Your task to perform on an android device: open app "Google Sheets" (install if not already installed) Image 0: 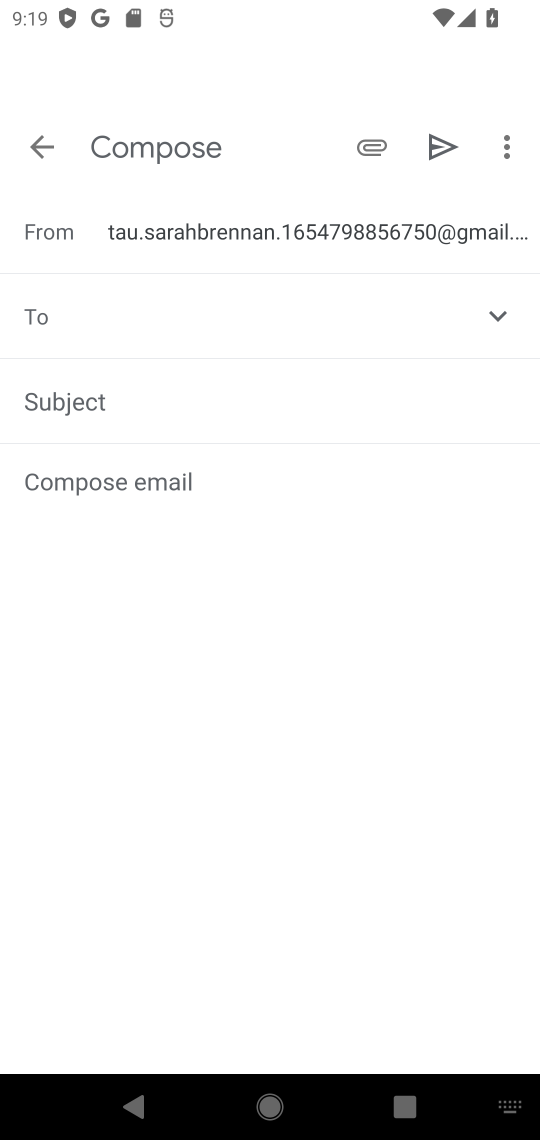
Step 0: press back button
Your task to perform on an android device: open app "Google Sheets" (install if not already installed) Image 1: 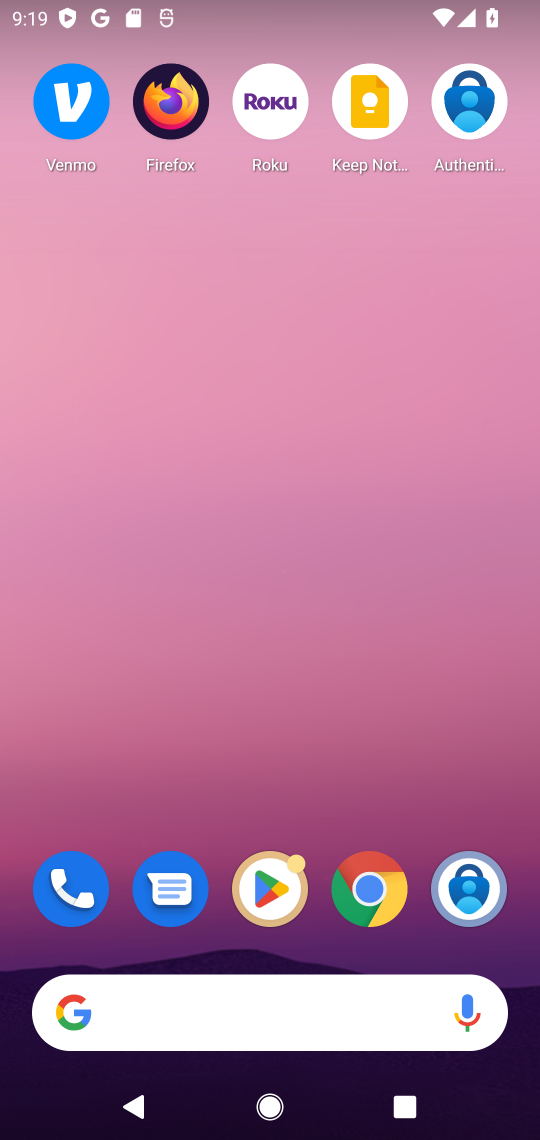
Step 1: click (246, 884)
Your task to perform on an android device: open app "Google Sheets" (install if not already installed) Image 2: 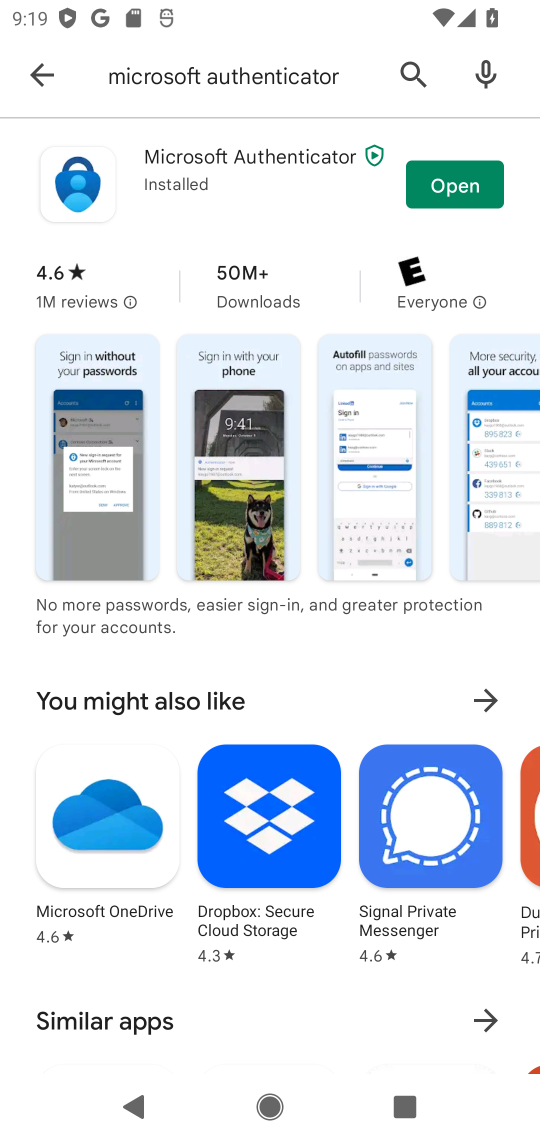
Step 2: click (52, 69)
Your task to perform on an android device: open app "Google Sheets" (install if not already installed) Image 3: 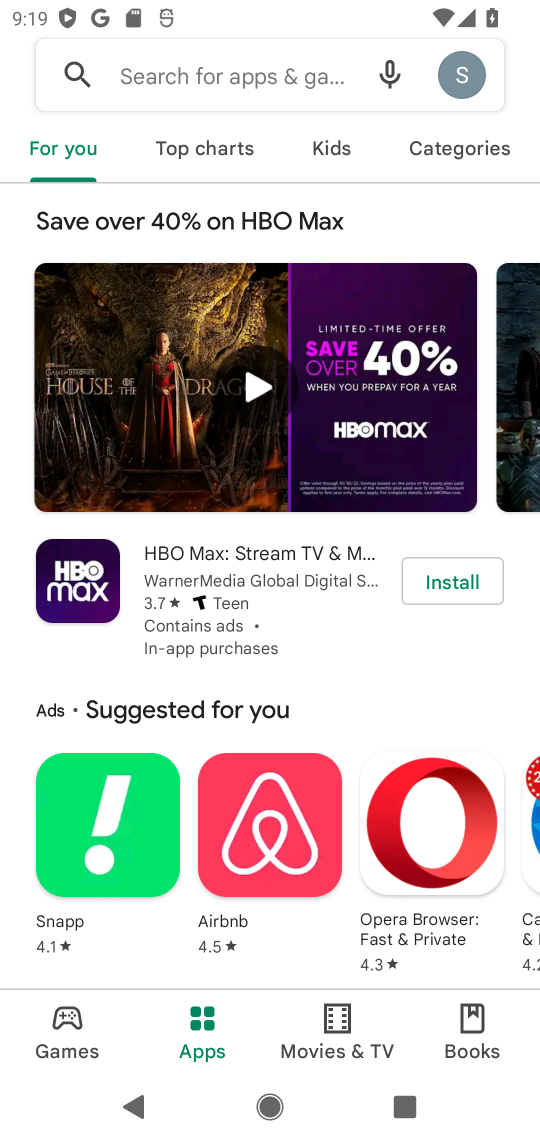
Step 3: click (177, 74)
Your task to perform on an android device: open app "Google Sheets" (install if not already installed) Image 4: 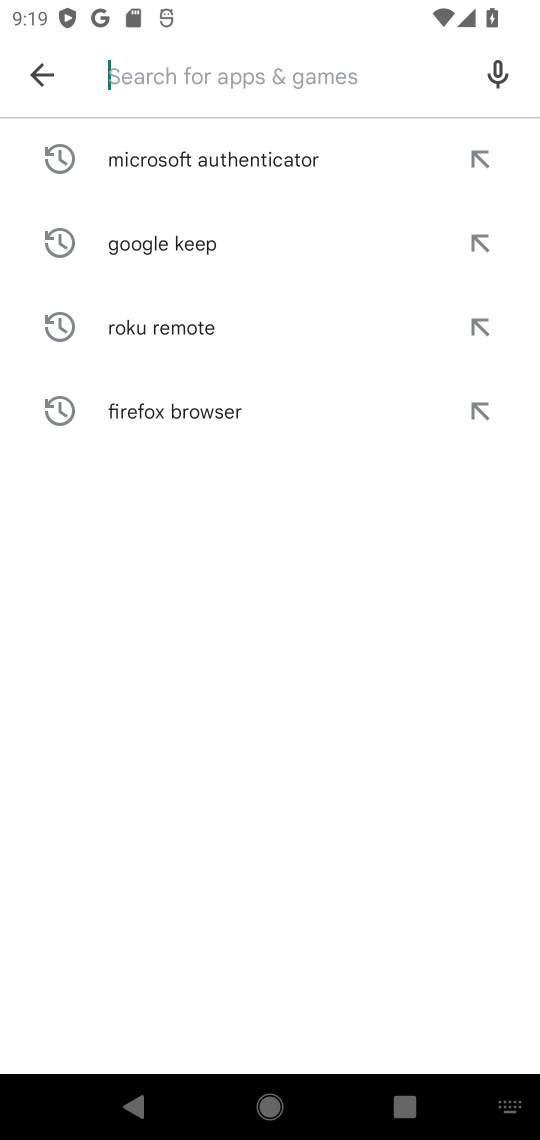
Step 4: type "Google Sheets"
Your task to perform on an android device: open app "Google Sheets" (install if not already installed) Image 5: 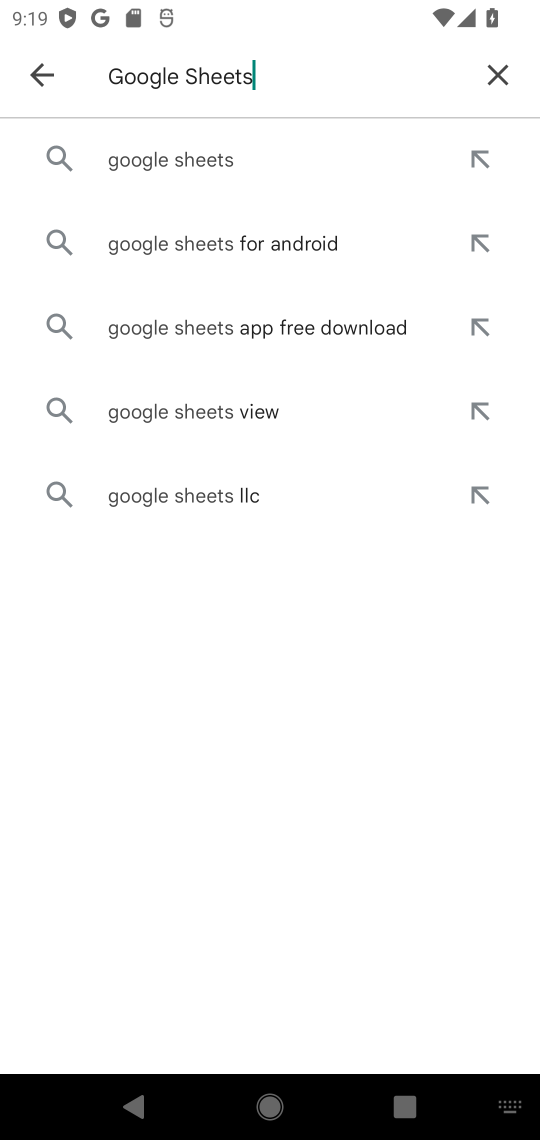
Step 5: click (166, 162)
Your task to perform on an android device: open app "Google Sheets" (install if not already installed) Image 6: 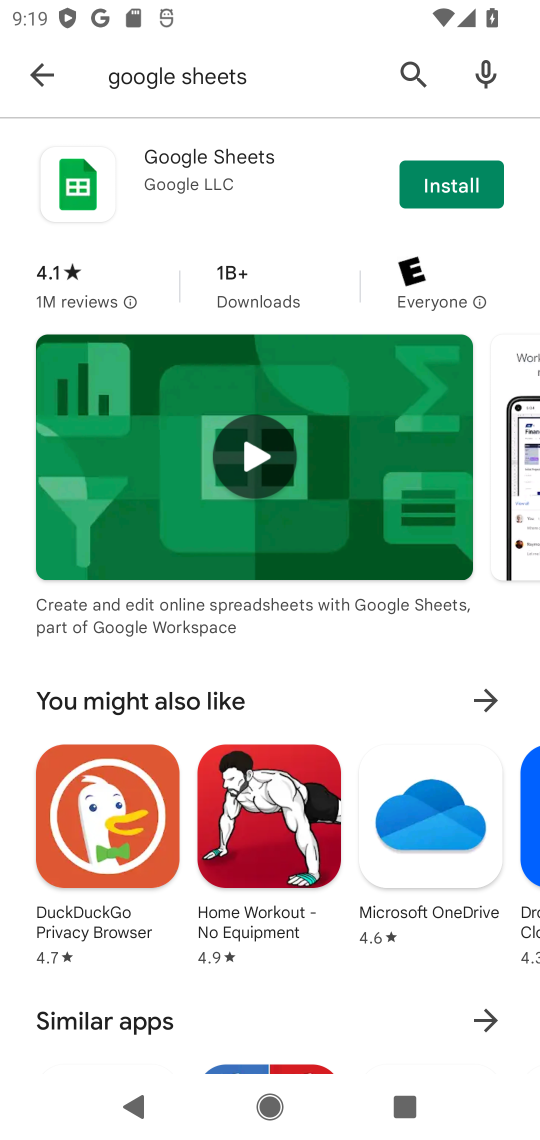
Step 6: click (446, 194)
Your task to perform on an android device: open app "Google Sheets" (install if not already installed) Image 7: 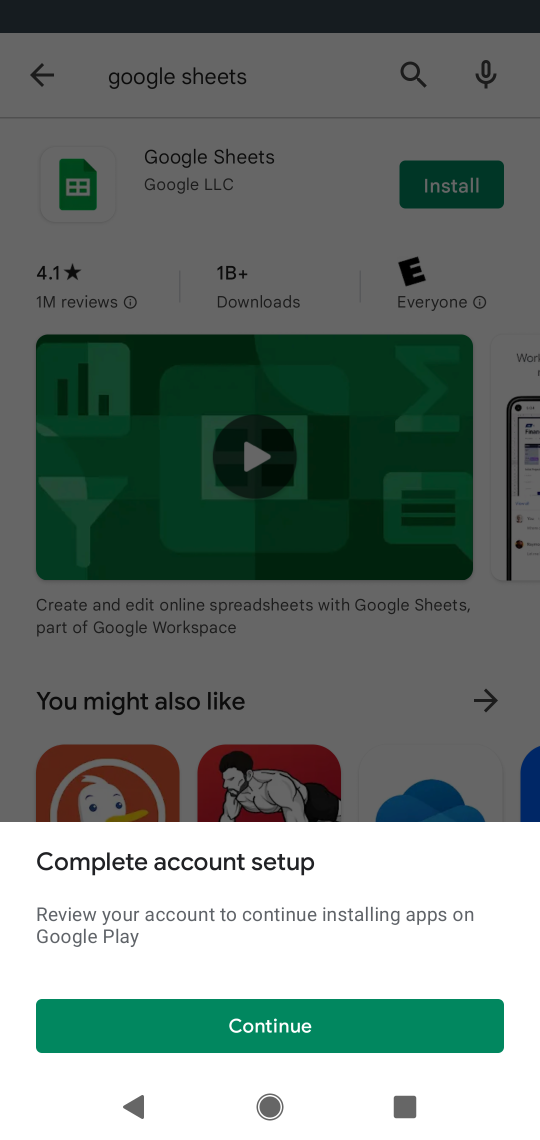
Step 7: click (220, 1041)
Your task to perform on an android device: open app "Google Sheets" (install if not already installed) Image 8: 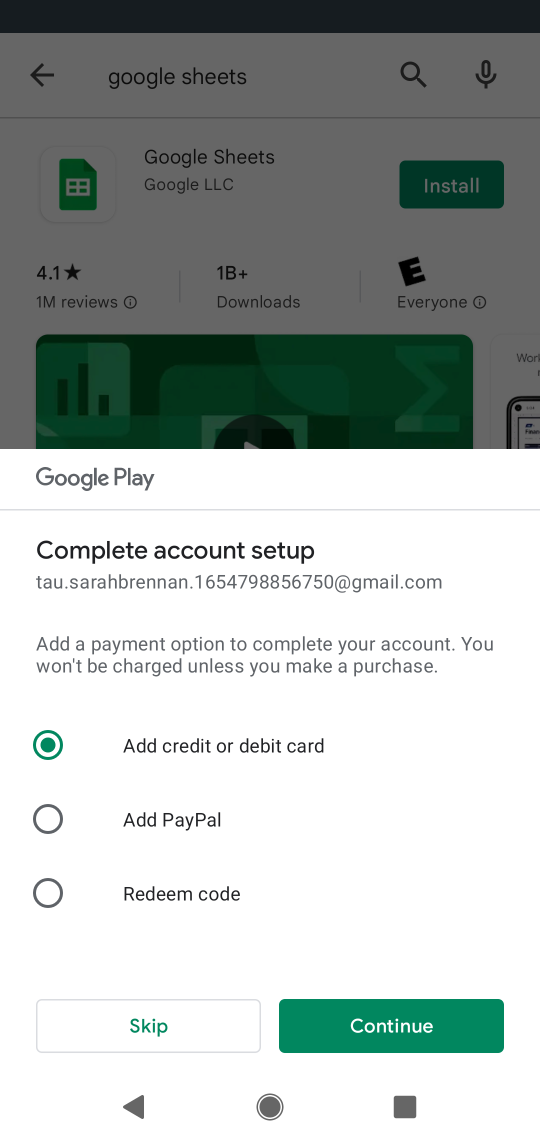
Step 8: click (147, 1019)
Your task to perform on an android device: open app "Google Sheets" (install if not already installed) Image 9: 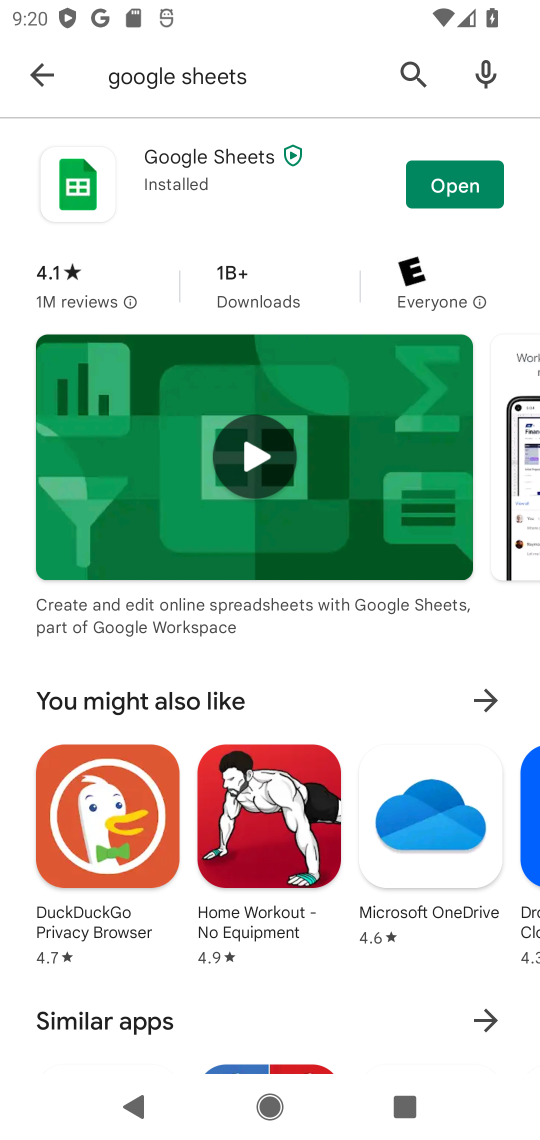
Step 9: click (428, 187)
Your task to perform on an android device: open app "Google Sheets" (install if not already installed) Image 10: 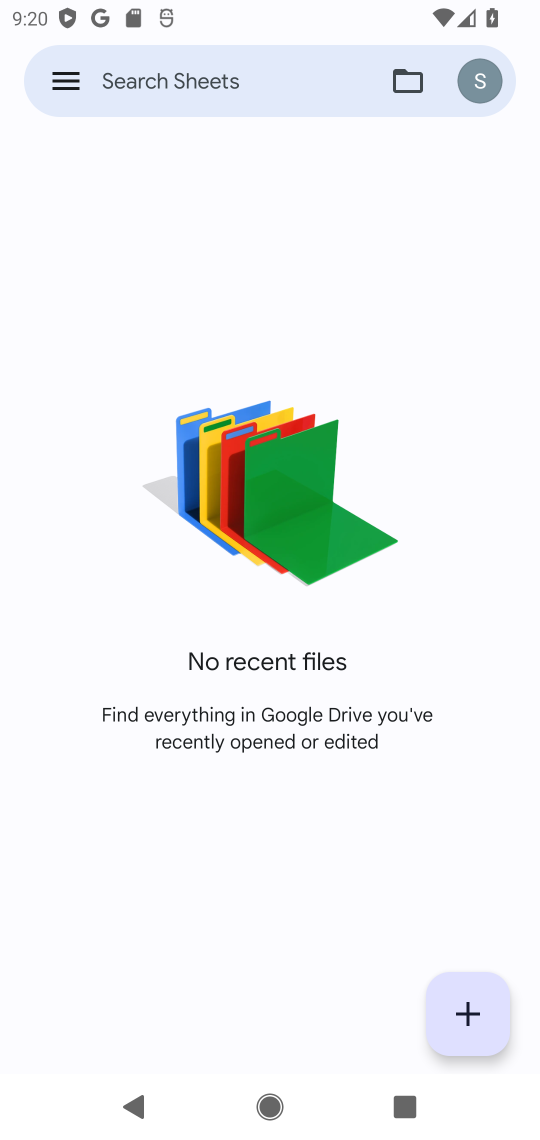
Step 10: task complete